Your task to perform on an android device: toggle airplane mode Image 0: 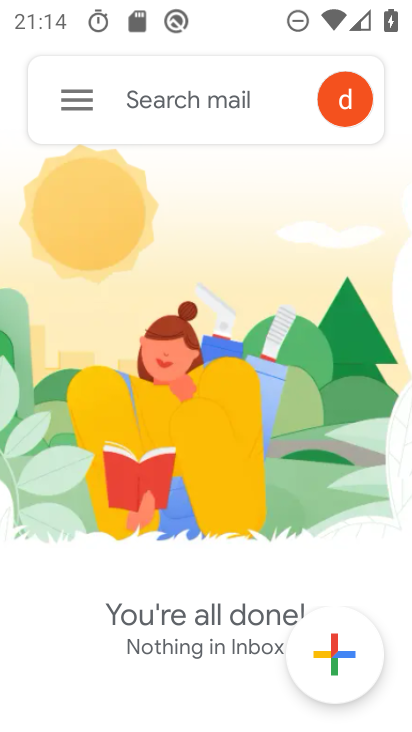
Step 0: press home button
Your task to perform on an android device: toggle airplane mode Image 1: 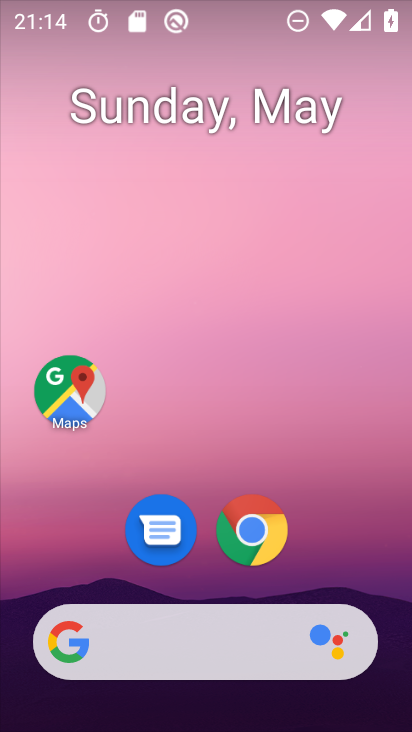
Step 1: drag from (246, 676) to (316, 165)
Your task to perform on an android device: toggle airplane mode Image 2: 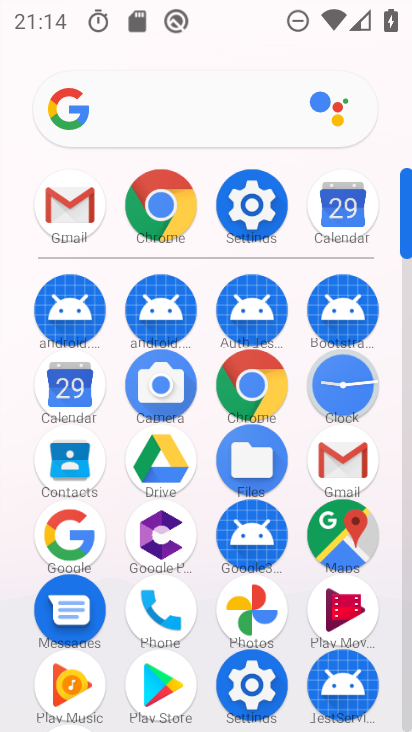
Step 2: click (264, 190)
Your task to perform on an android device: toggle airplane mode Image 3: 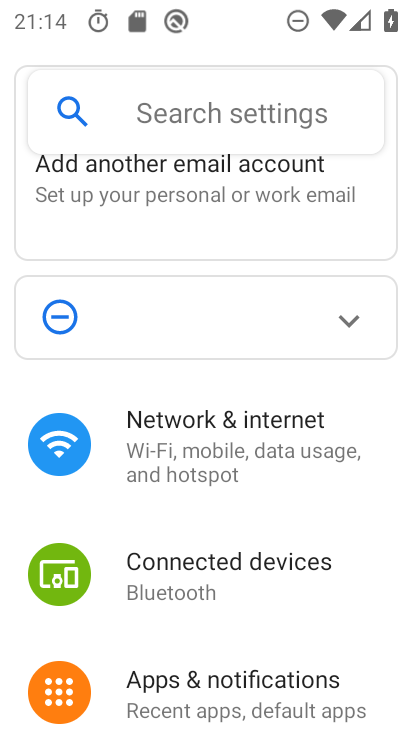
Step 3: click (197, 476)
Your task to perform on an android device: toggle airplane mode Image 4: 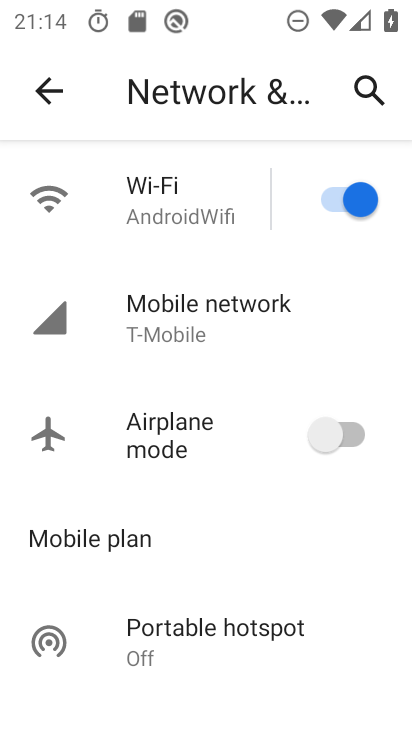
Step 4: click (341, 433)
Your task to perform on an android device: toggle airplane mode Image 5: 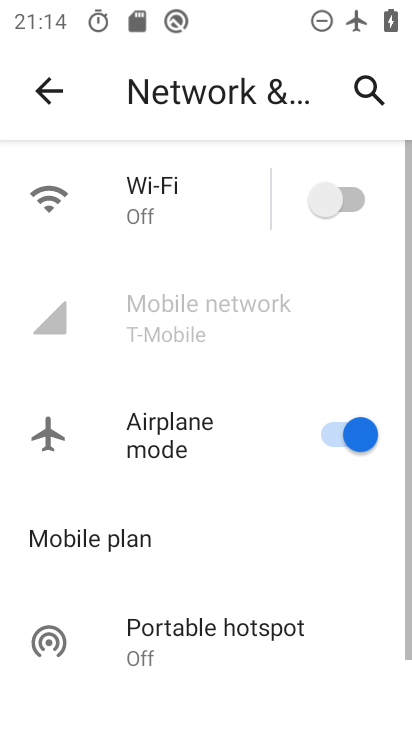
Step 5: click (341, 429)
Your task to perform on an android device: toggle airplane mode Image 6: 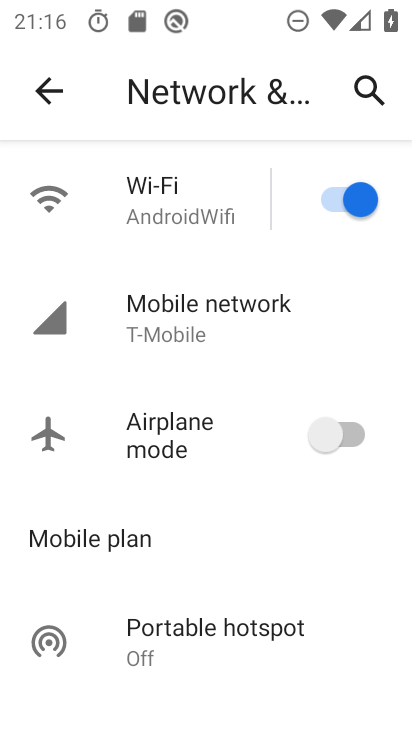
Step 6: task complete